Your task to perform on an android device: turn on data saver in the chrome app Image 0: 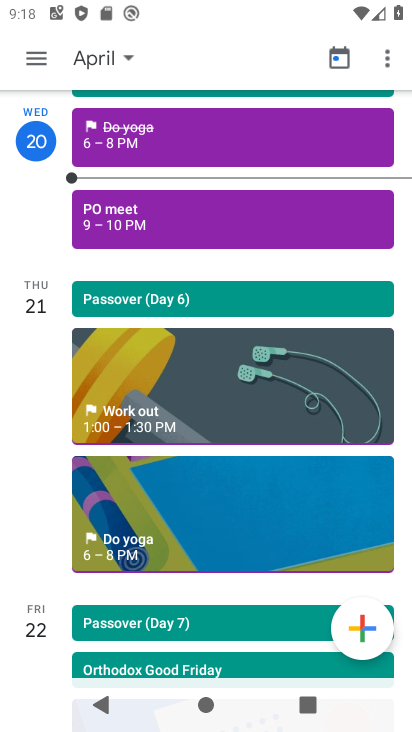
Step 0: task complete